Your task to perform on an android device: Clear the shopping cart on walmart.com. Add dell xps to the cart on walmart.com Image 0: 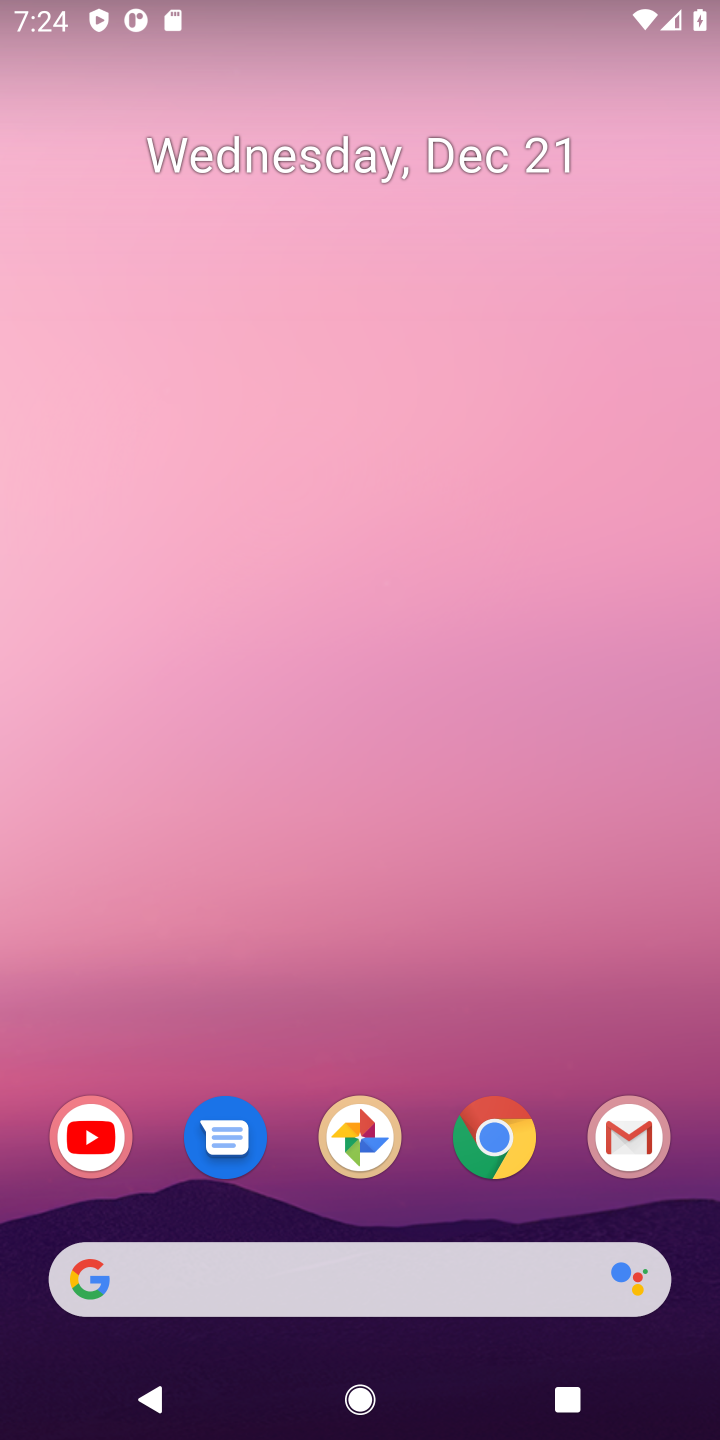
Step 0: click (498, 1155)
Your task to perform on an android device: Clear the shopping cart on walmart.com. Add dell xps to the cart on walmart.com Image 1: 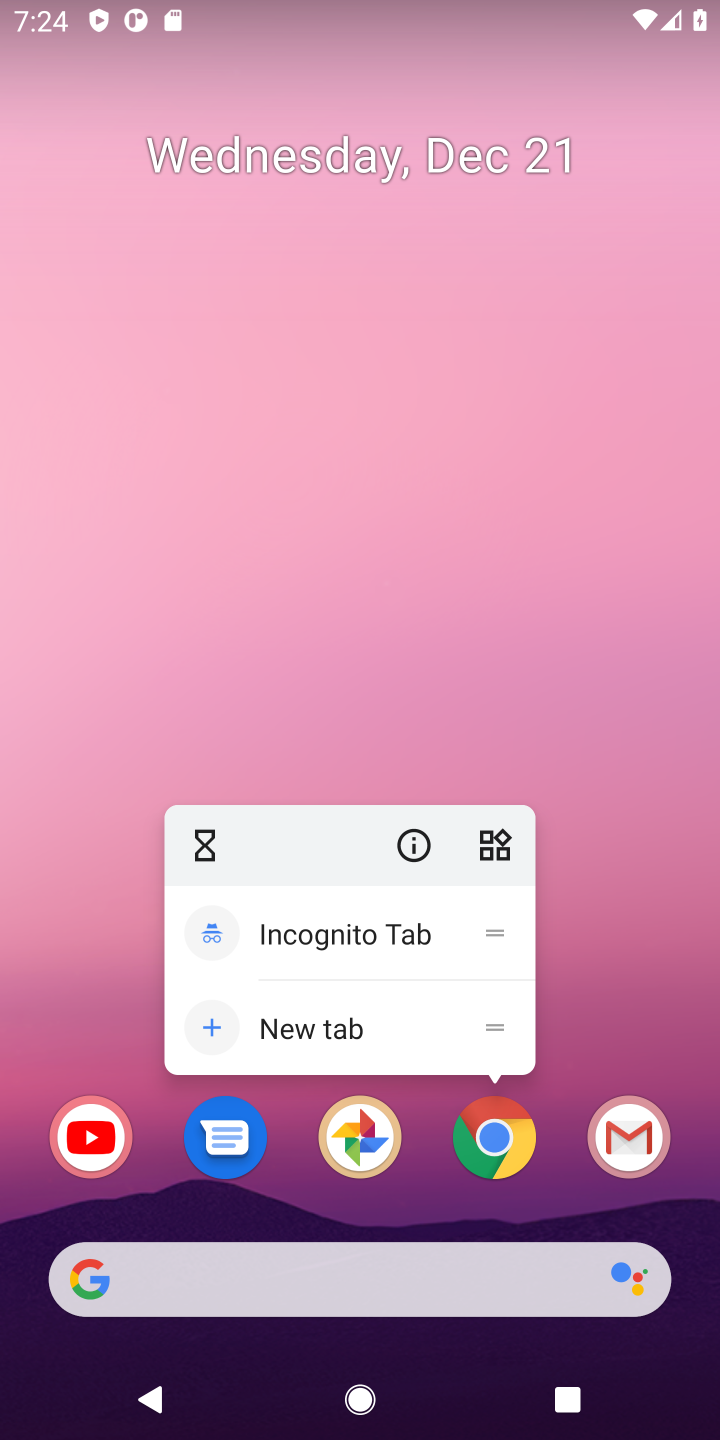
Step 1: click (498, 1155)
Your task to perform on an android device: Clear the shopping cart on walmart.com. Add dell xps to the cart on walmart.com Image 2: 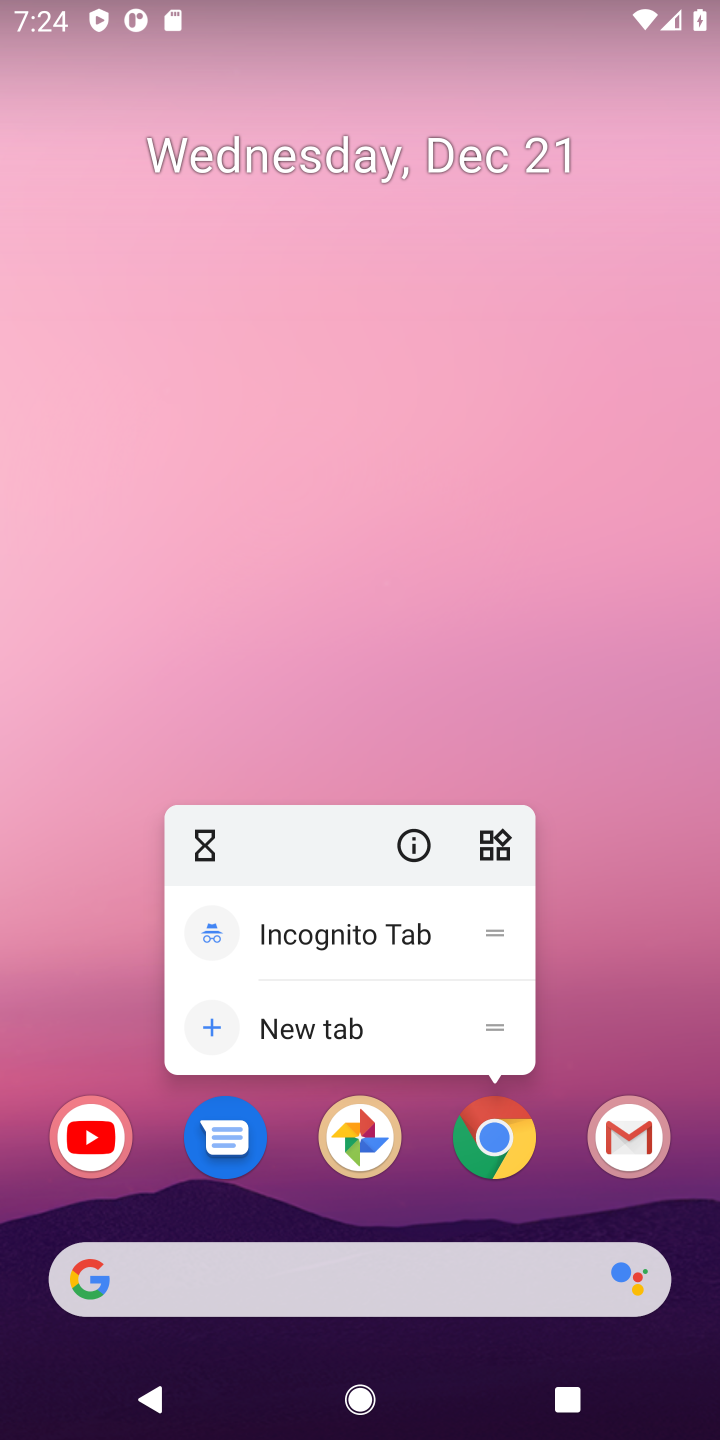
Step 2: click (498, 1155)
Your task to perform on an android device: Clear the shopping cart on walmart.com. Add dell xps to the cart on walmart.com Image 3: 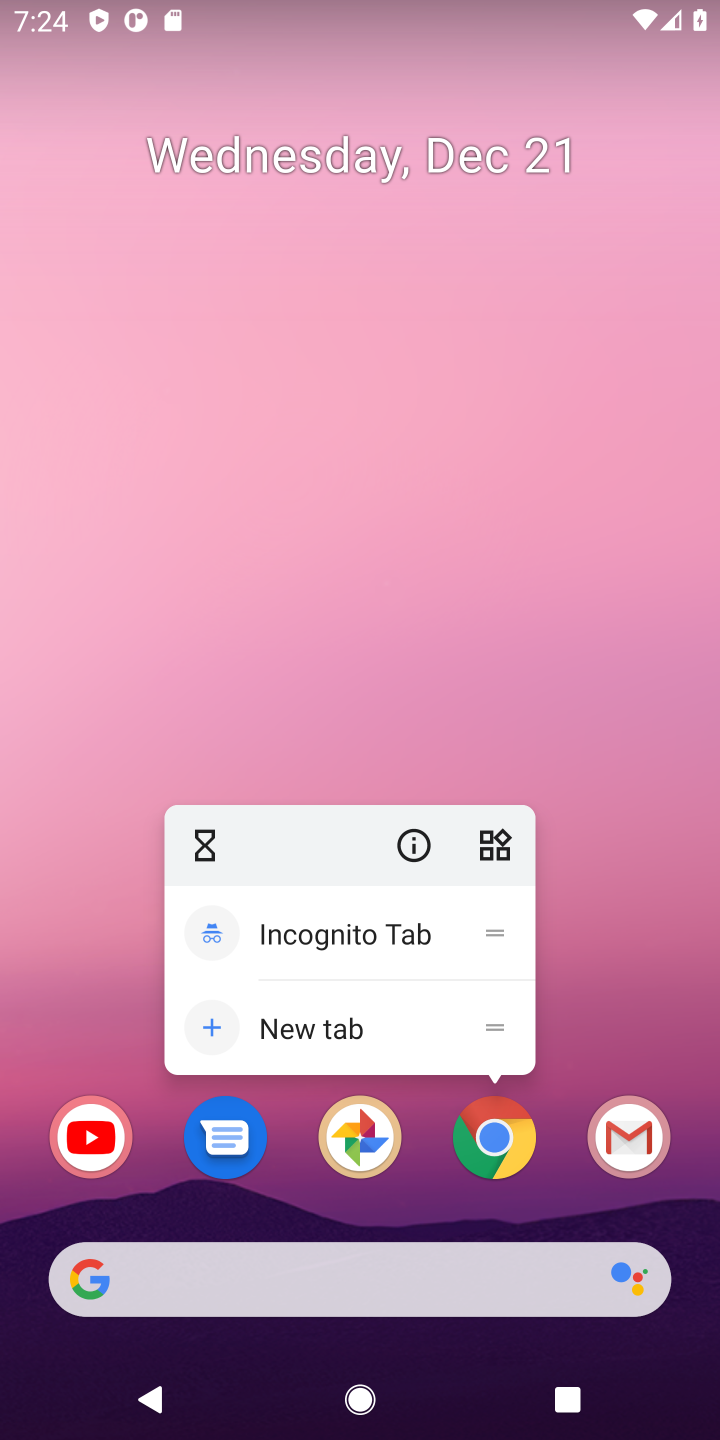
Step 3: click (498, 1155)
Your task to perform on an android device: Clear the shopping cart on walmart.com. Add dell xps to the cart on walmart.com Image 4: 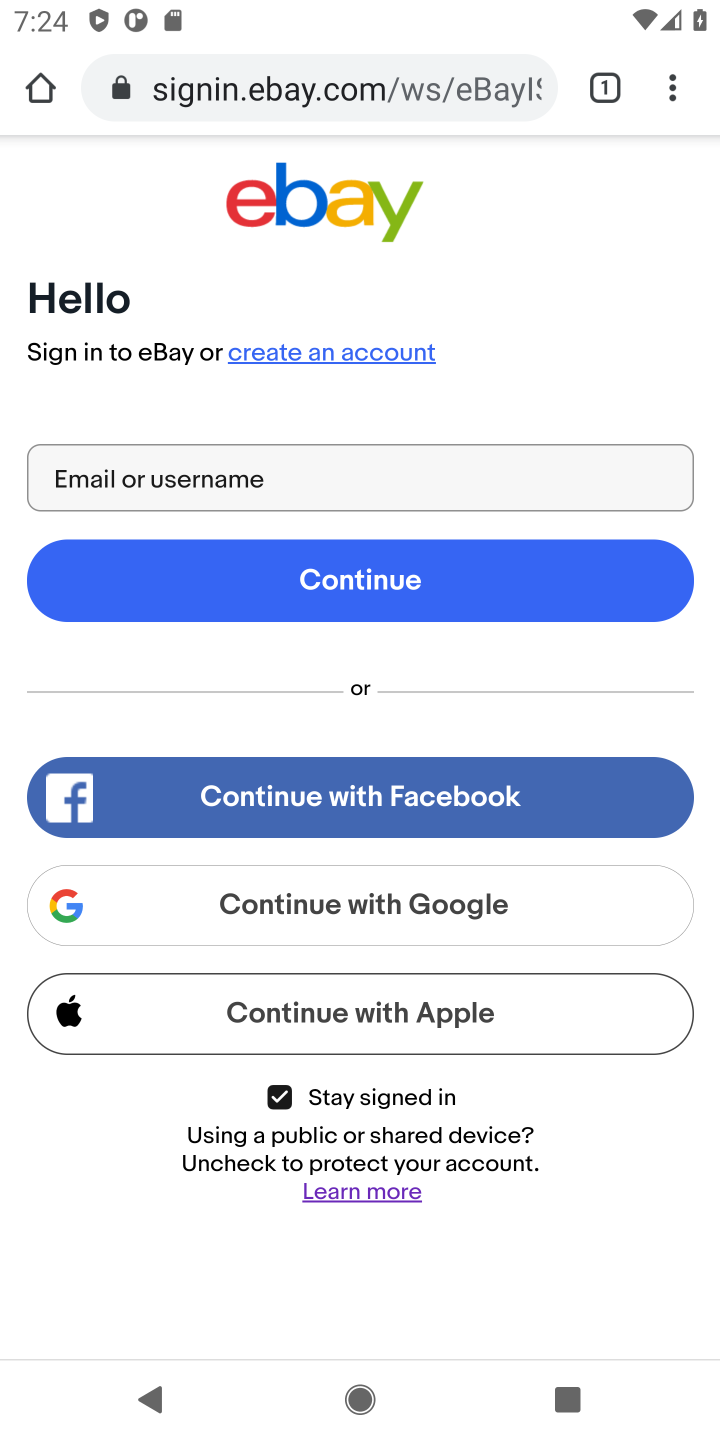
Step 4: click (265, 98)
Your task to perform on an android device: Clear the shopping cart on walmart.com. Add dell xps to the cart on walmart.com Image 5: 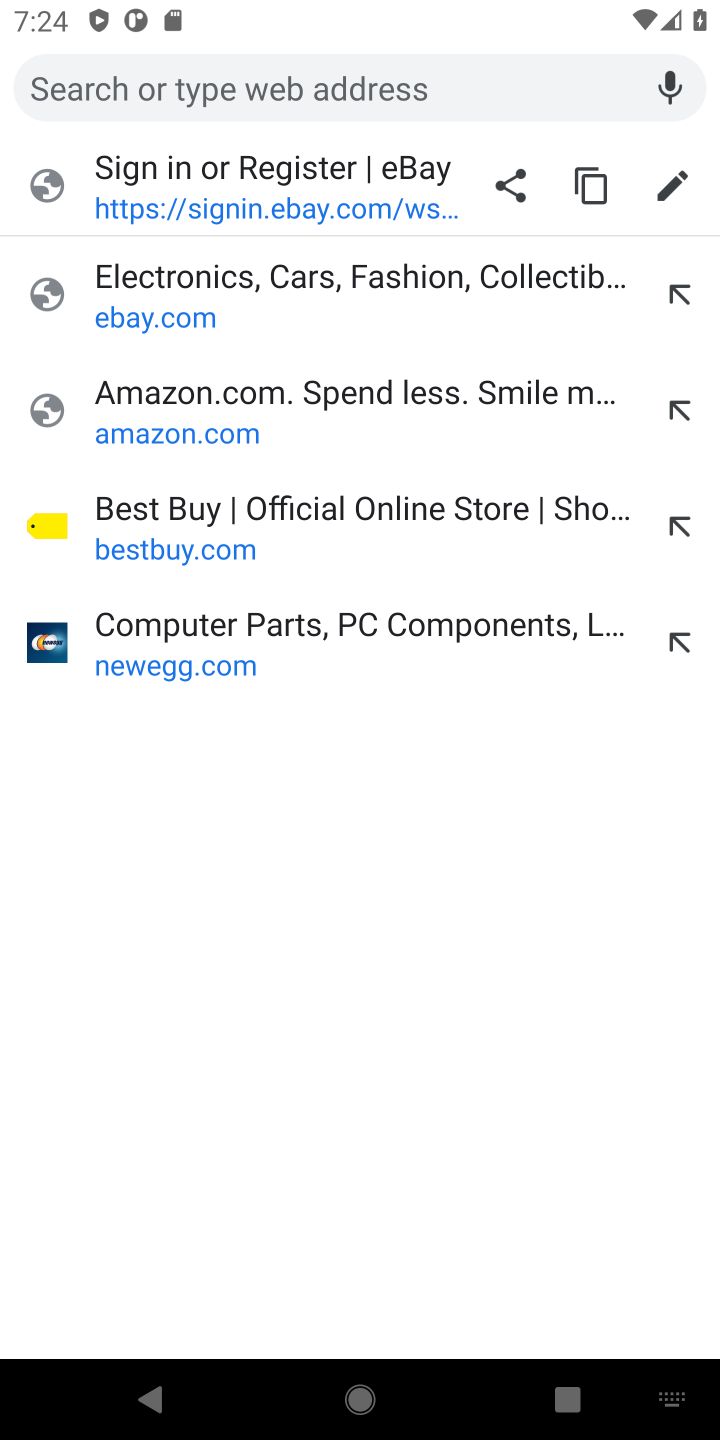
Step 5: type "walmart.com"
Your task to perform on an android device: Clear the shopping cart on walmart.com. Add dell xps to the cart on walmart.com Image 6: 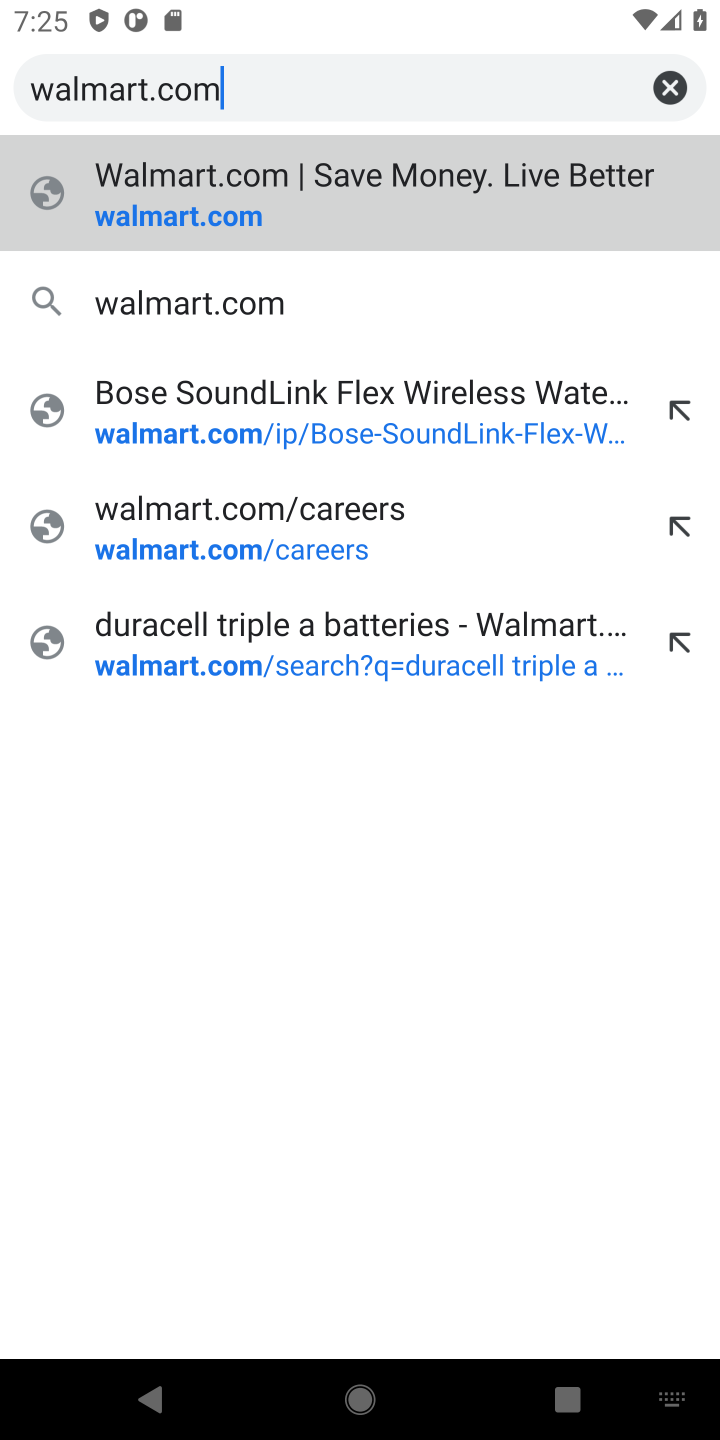
Step 6: click (173, 223)
Your task to perform on an android device: Clear the shopping cart on walmart.com. Add dell xps to the cart on walmart.com Image 7: 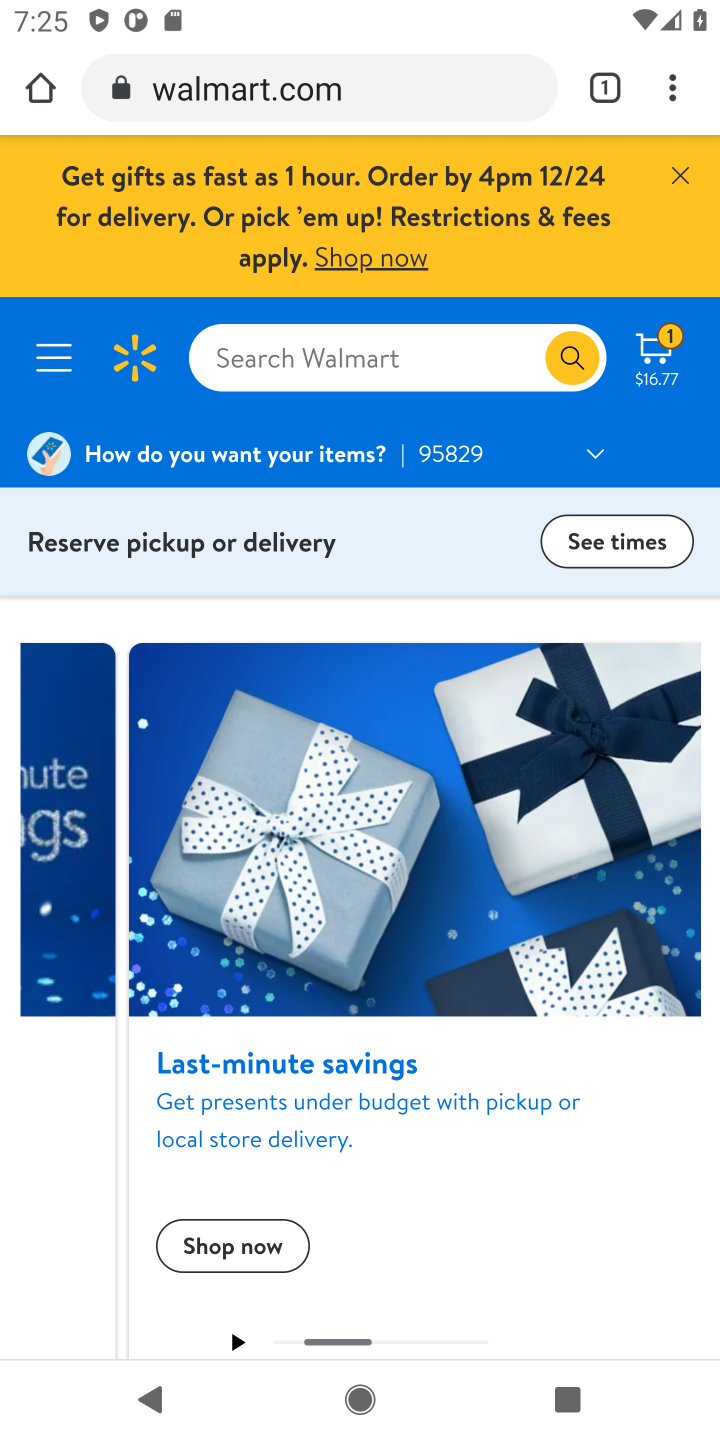
Step 7: click (654, 373)
Your task to perform on an android device: Clear the shopping cart on walmart.com. Add dell xps to the cart on walmart.com Image 8: 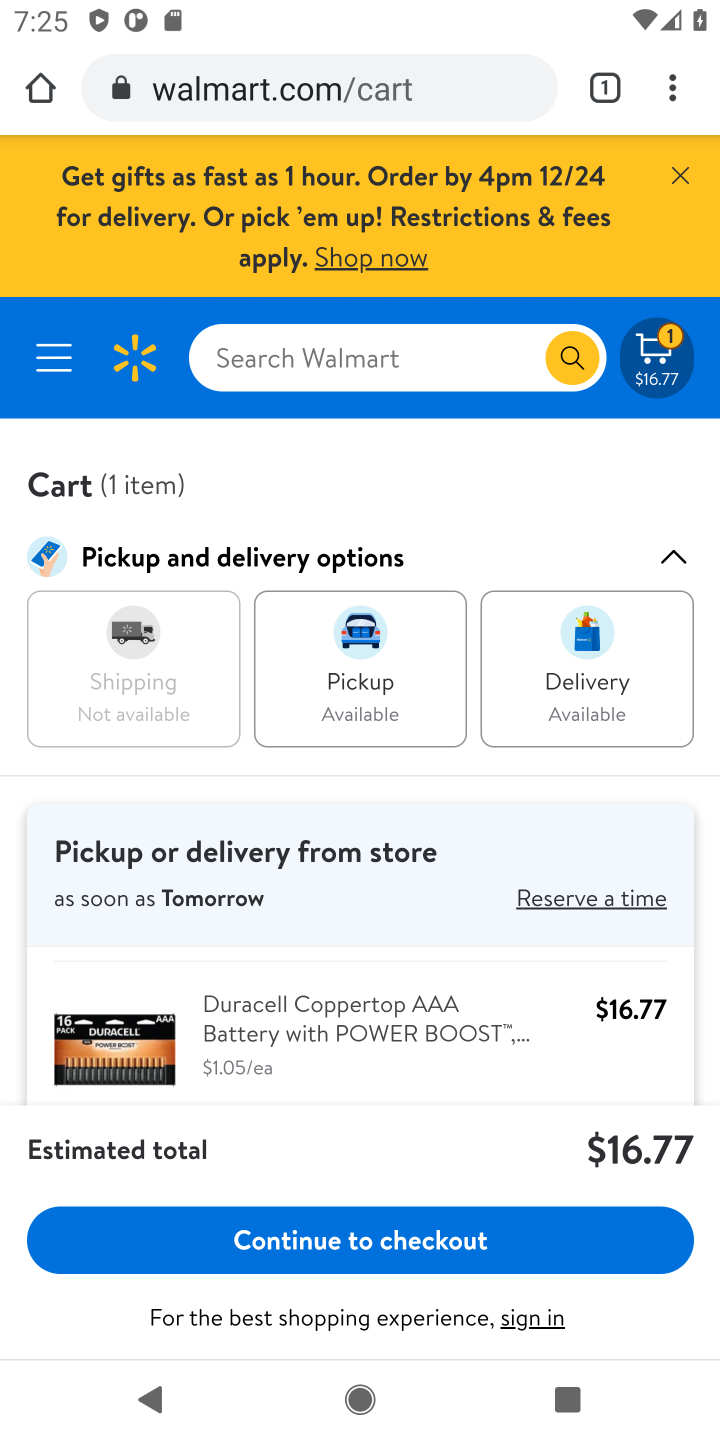
Step 8: drag from (379, 929) to (379, 360)
Your task to perform on an android device: Clear the shopping cart on walmart.com. Add dell xps to the cart on walmart.com Image 9: 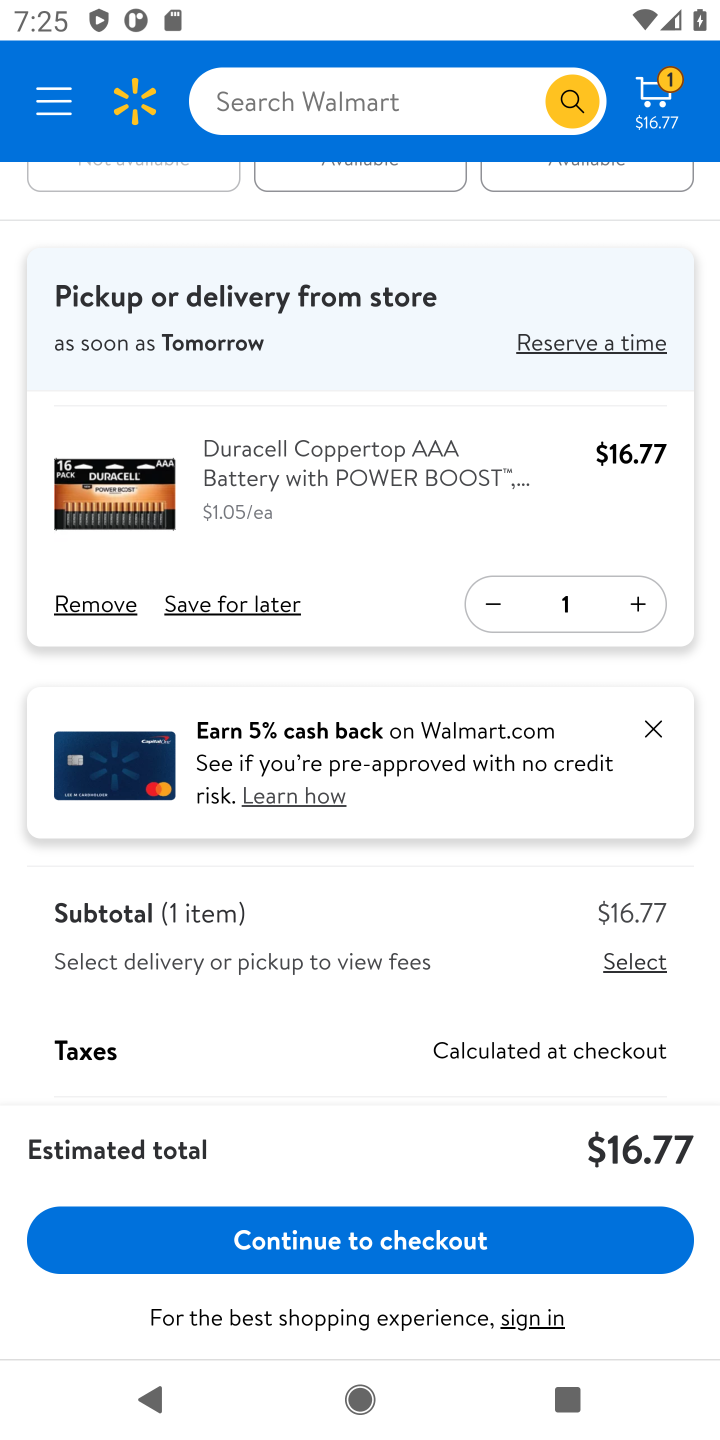
Step 9: click (69, 592)
Your task to perform on an android device: Clear the shopping cart on walmart.com. Add dell xps to the cart on walmart.com Image 10: 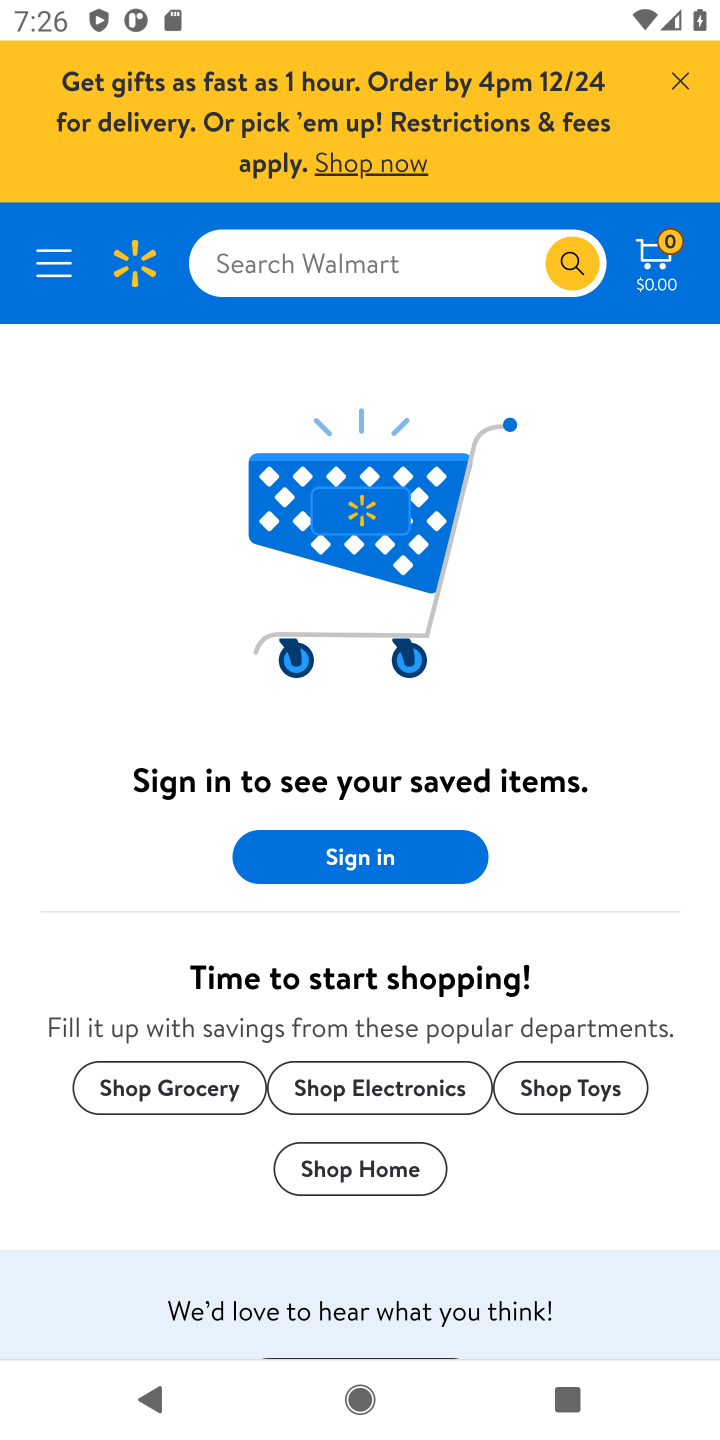
Step 10: click (227, 278)
Your task to perform on an android device: Clear the shopping cart on walmart.com. Add dell xps to the cart on walmart.com Image 11: 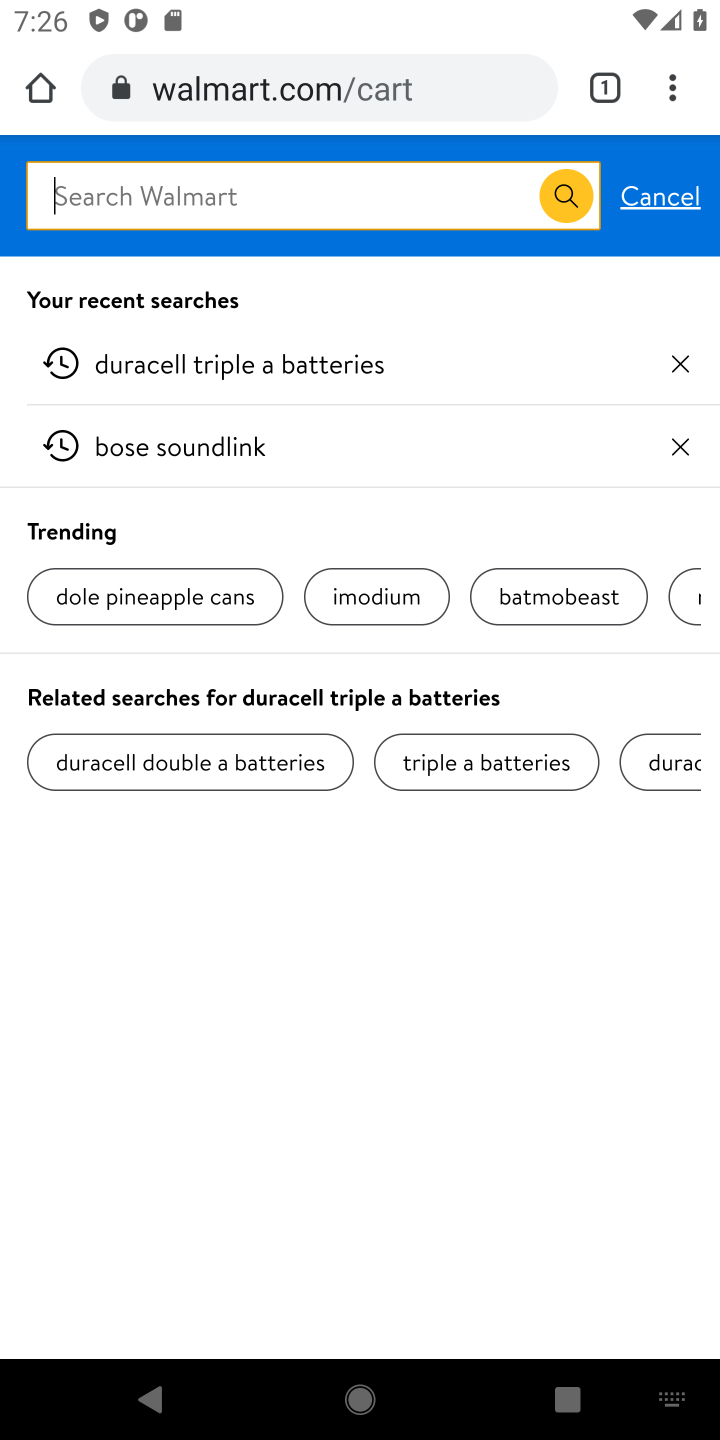
Step 11: type "dell xps"
Your task to perform on an android device: Clear the shopping cart on walmart.com. Add dell xps to the cart on walmart.com Image 12: 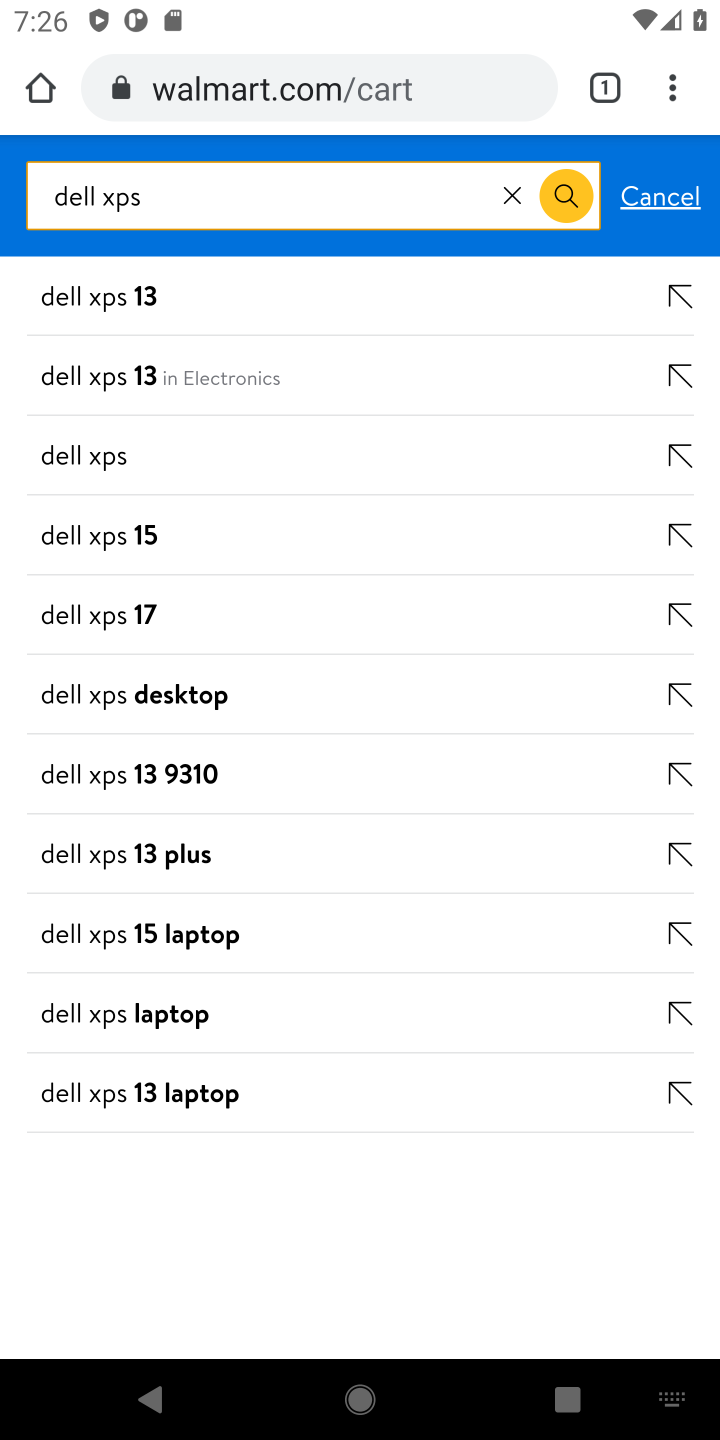
Step 12: click (96, 465)
Your task to perform on an android device: Clear the shopping cart on walmart.com. Add dell xps to the cart on walmart.com Image 13: 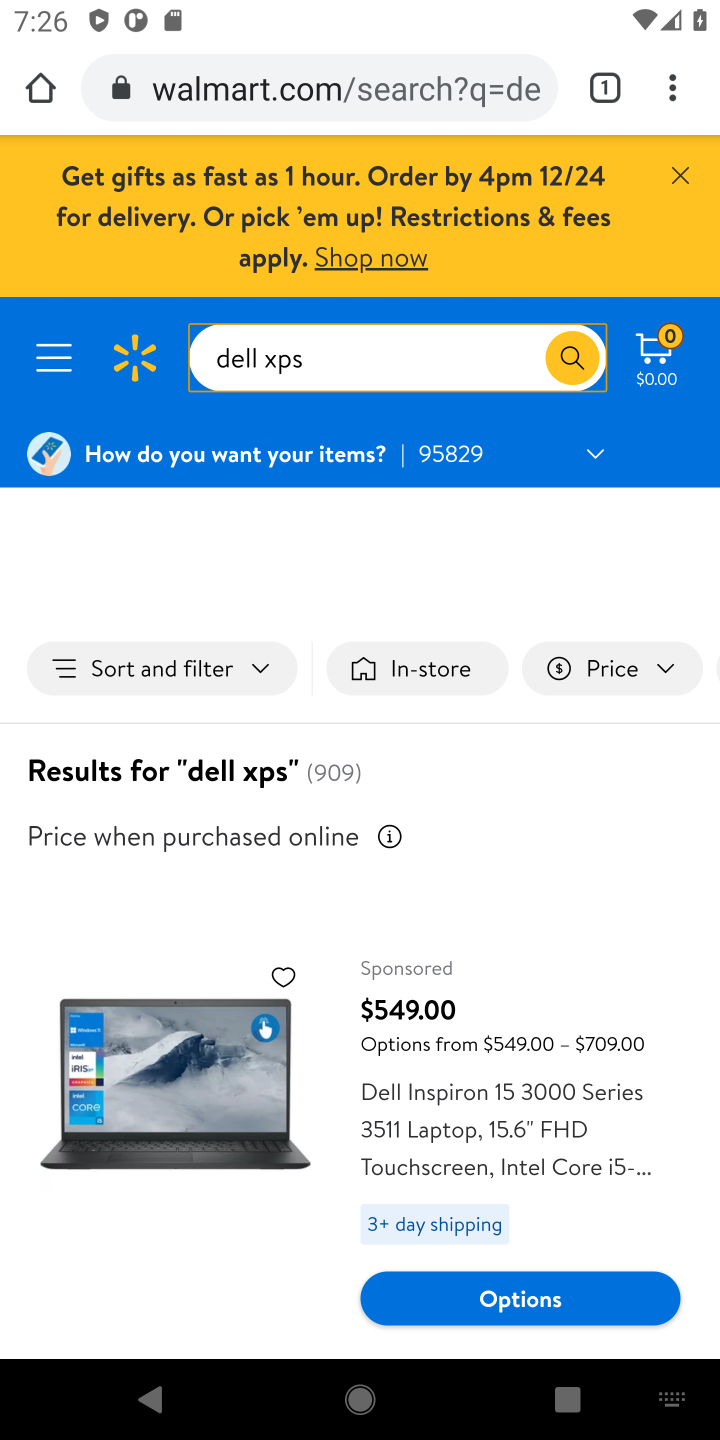
Step 13: drag from (366, 890) to (368, 334)
Your task to perform on an android device: Clear the shopping cart on walmart.com. Add dell xps to the cart on walmart.com Image 14: 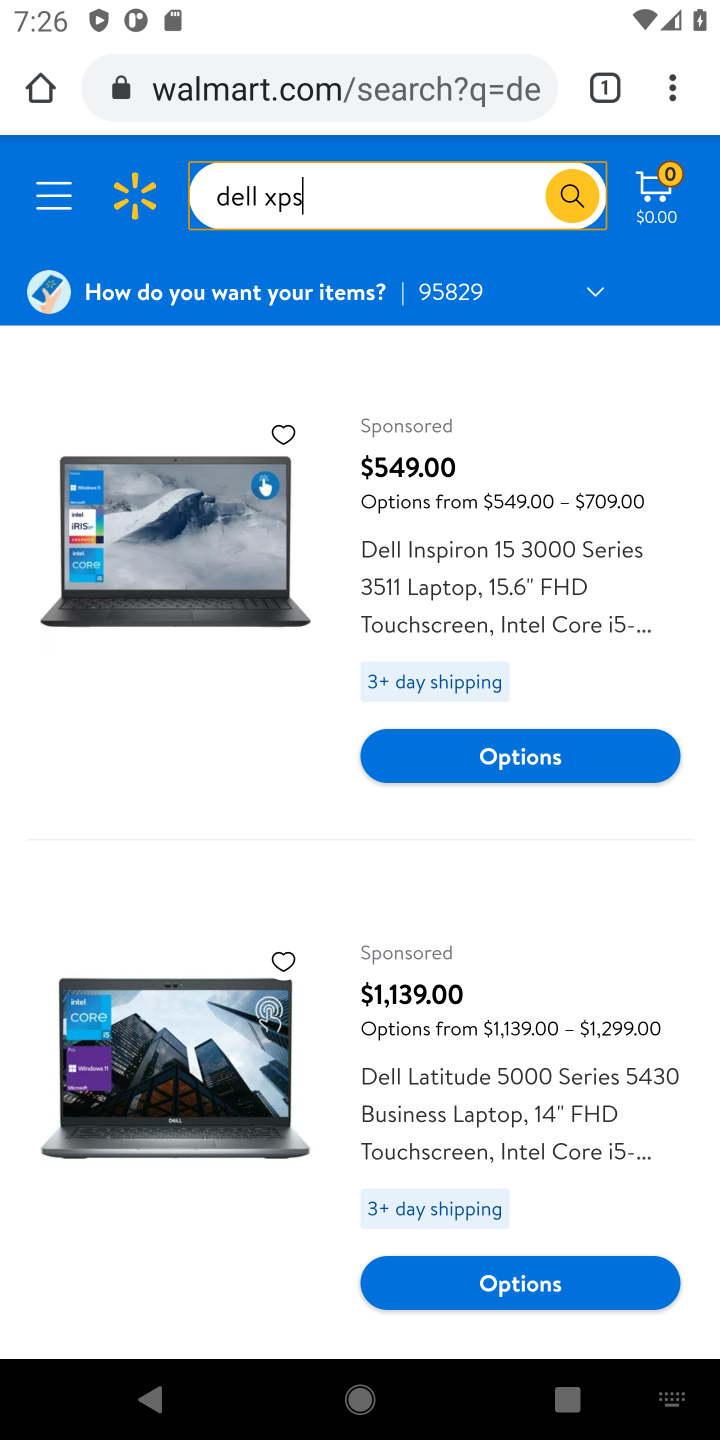
Step 14: drag from (339, 786) to (318, 280)
Your task to perform on an android device: Clear the shopping cart on walmart.com. Add dell xps to the cart on walmart.com Image 15: 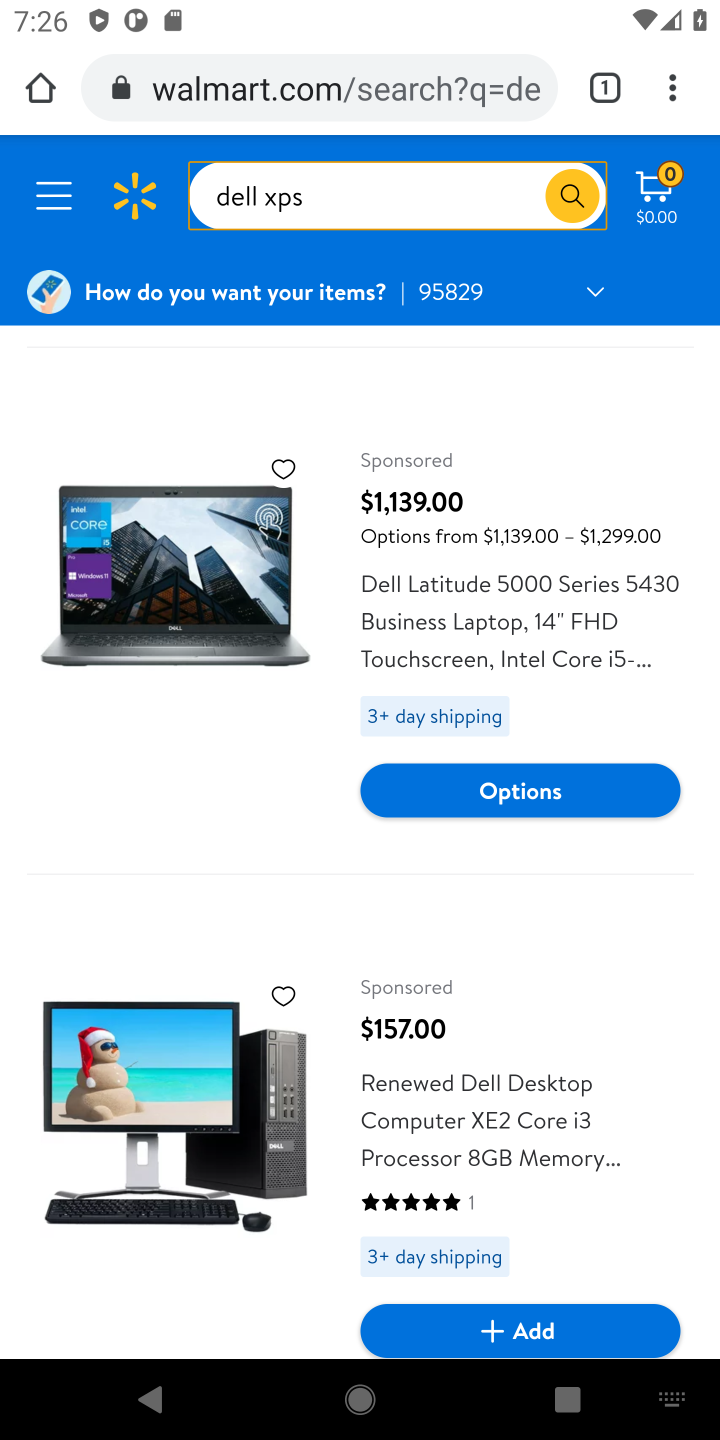
Step 15: drag from (244, 811) to (248, 295)
Your task to perform on an android device: Clear the shopping cart on walmart.com. Add dell xps to the cart on walmart.com Image 16: 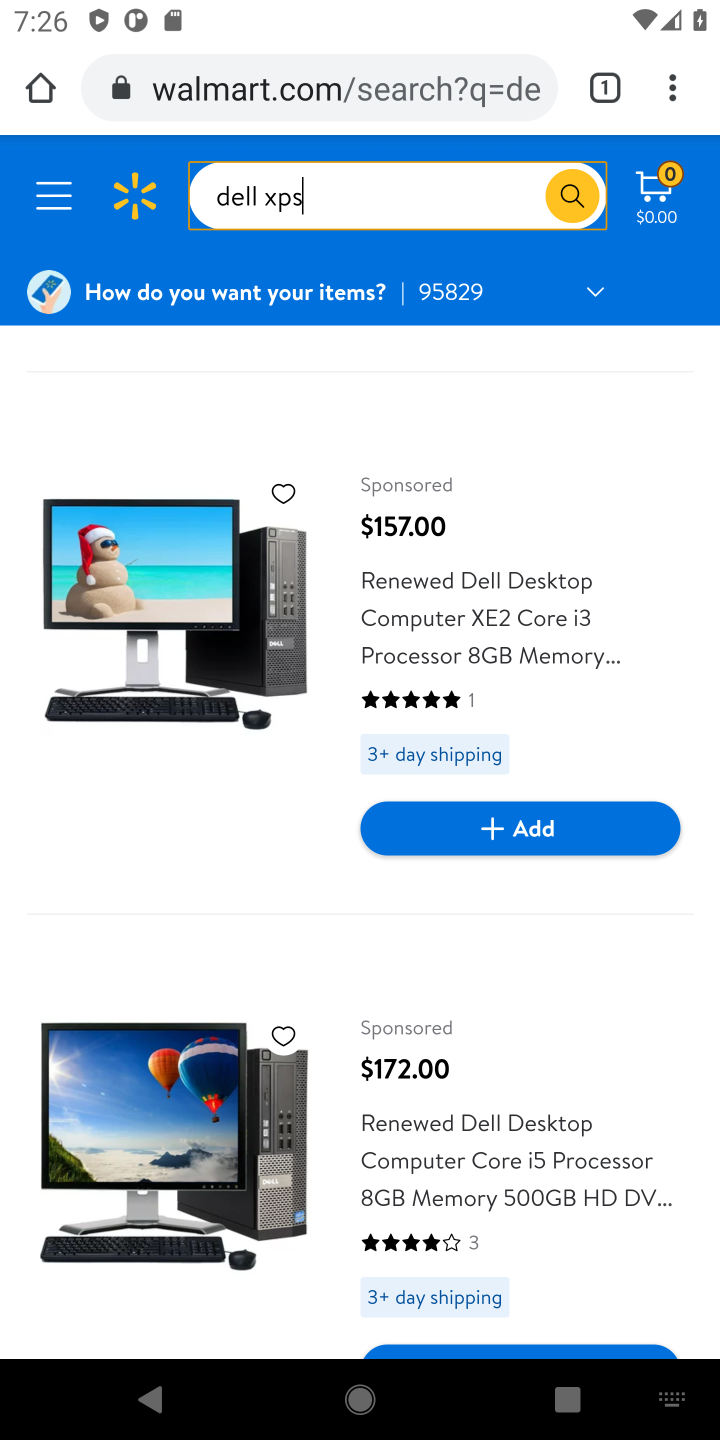
Step 16: drag from (180, 960) to (246, 349)
Your task to perform on an android device: Clear the shopping cart on walmart.com. Add dell xps to the cart on walmart.com Image 17: 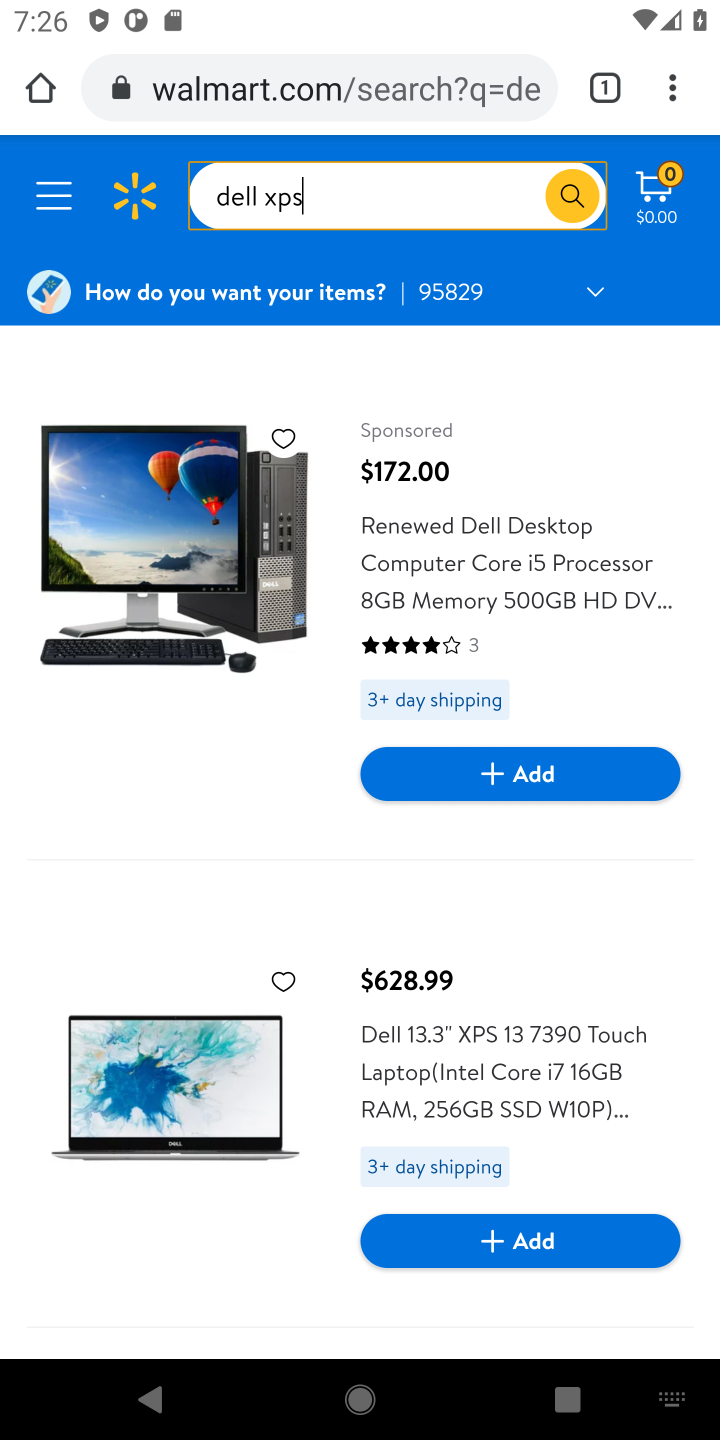
Step 17: drag from (303, 834) to (237, 460)
Your task to perform on an android device: Clear the shopping cart on walmart.com. Add dell xps to the cart on walmart.com Image 18: 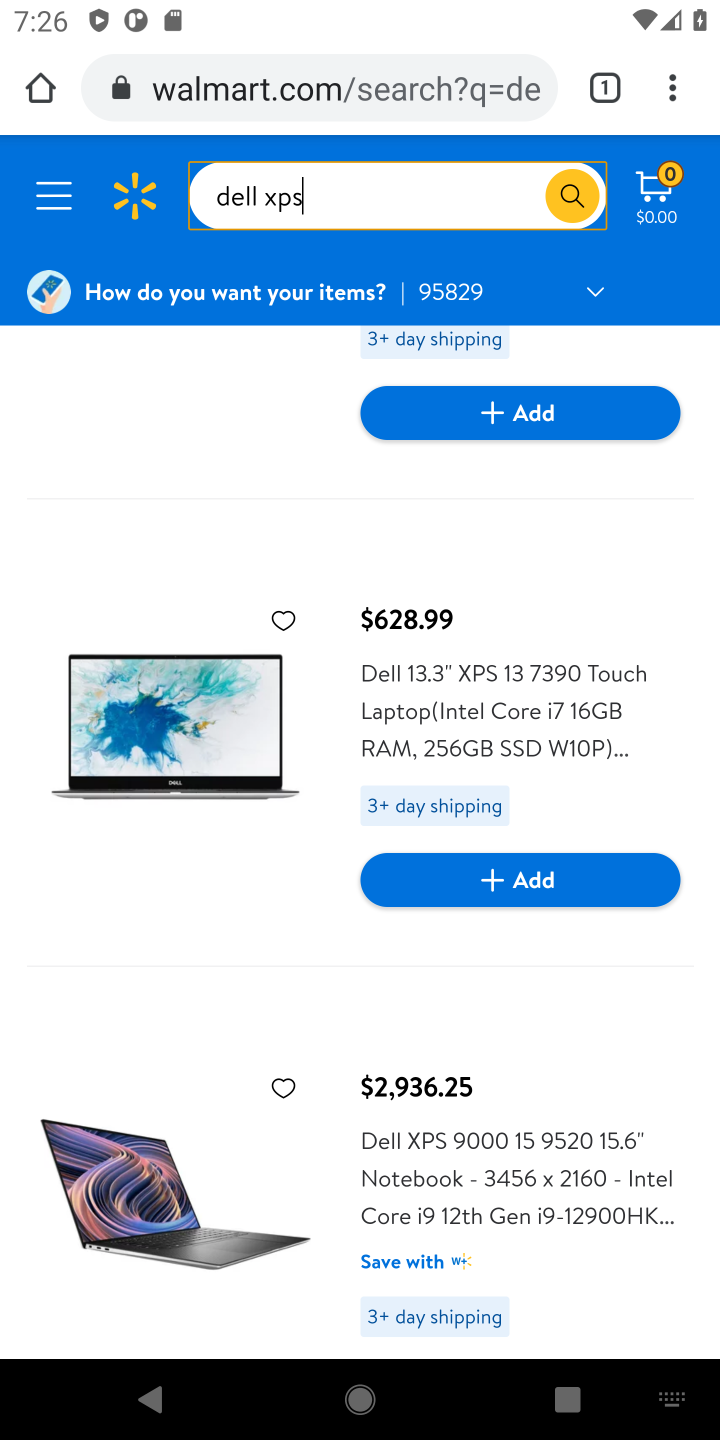
Step 18: click (520, 897)
Your task to perform on an android device: Clear the shopping cart on walmart.com. Add dell xps to the cart on walmart.com Image 19: 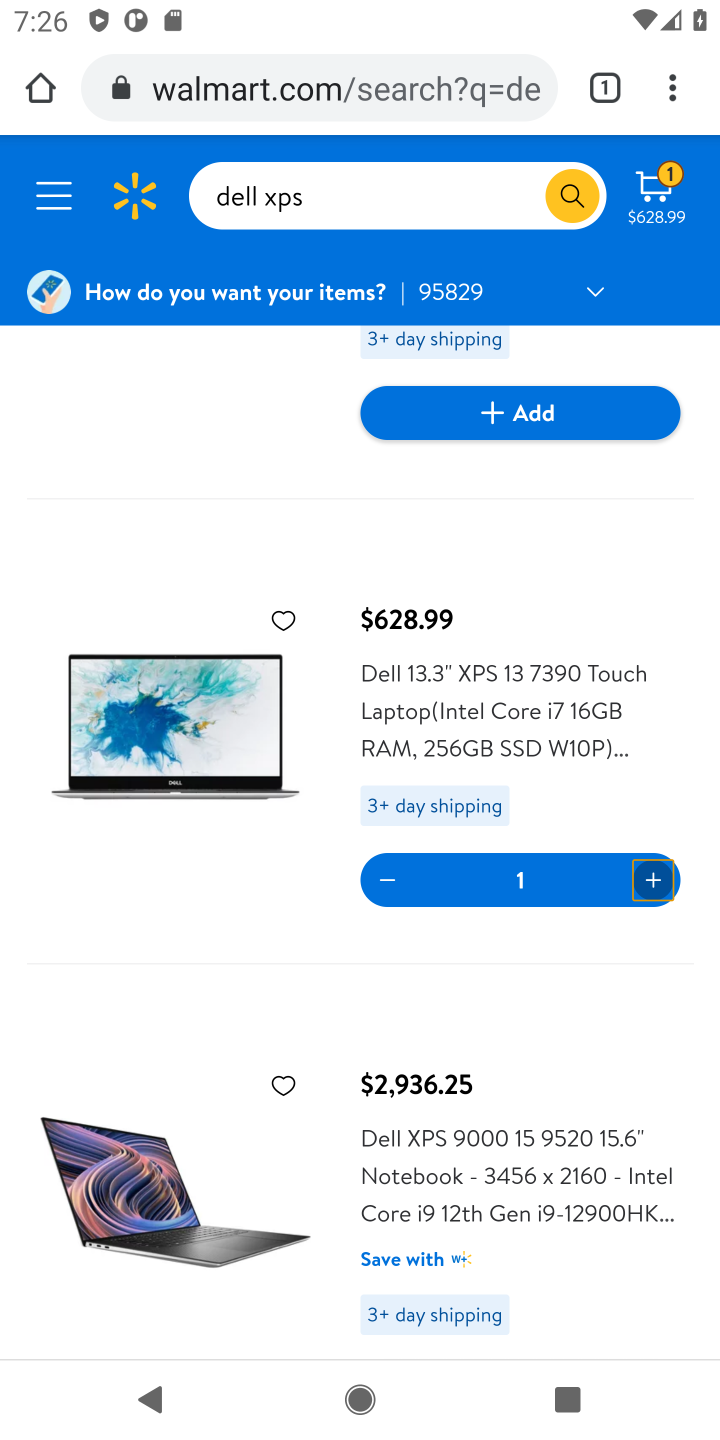
Step 19: task complete